Your task to perform on an android device: Go to wifi settings Image 0: 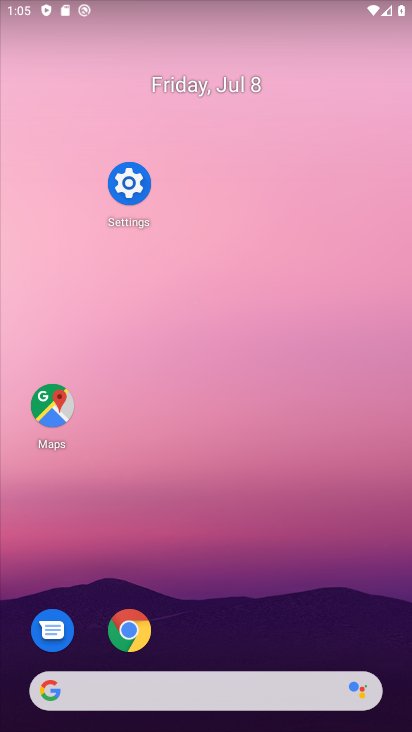
Step 0: click (115, 189)
Your task to perform on an android device: Go to wifi settings Image 1: 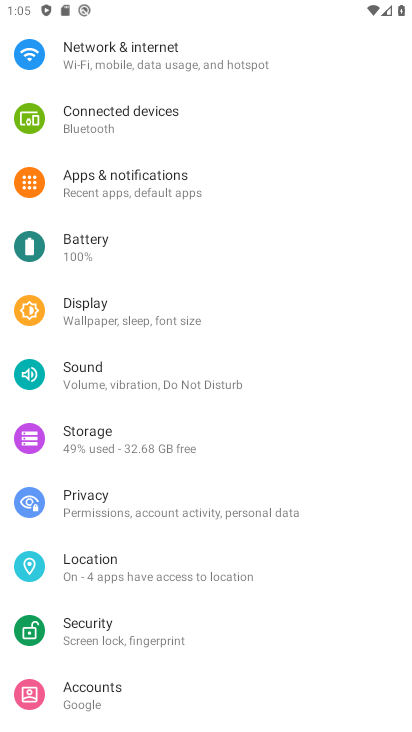
Step 1: click (211, 60)
Your task to perform on an android device: Go to wifi settings Image 2: 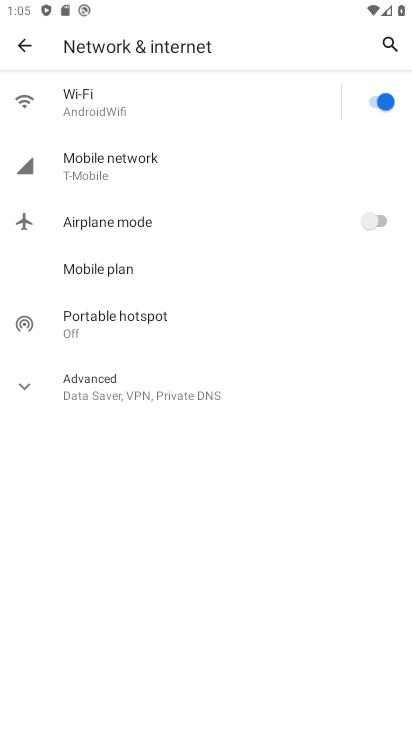
Step 2: click (219, 90)
Your task to perform on an android device: Go to wifi settings Image 3: 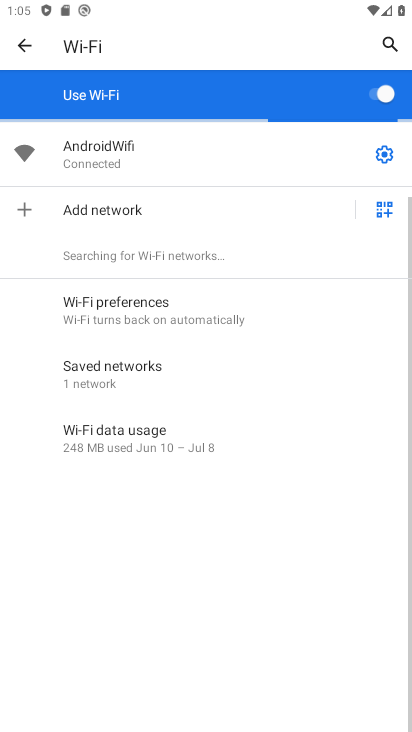
Step 3: click (384, 149)
Your task to perform on an android device: Go to wifi settings Image 4: 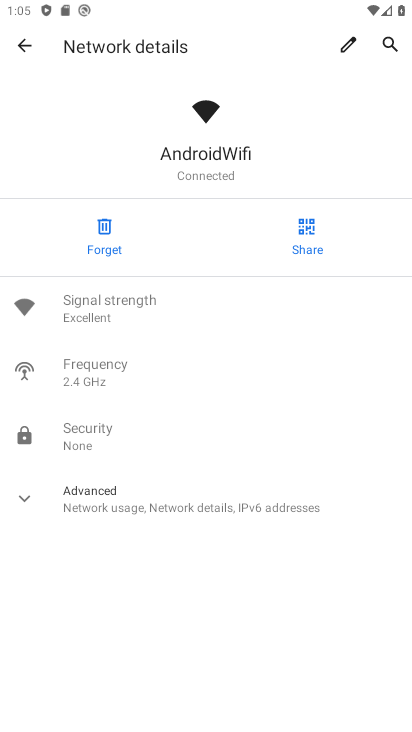
Step 4: task complete